Your task to perform on an android device: turn off translation in the chrome app Image 0: 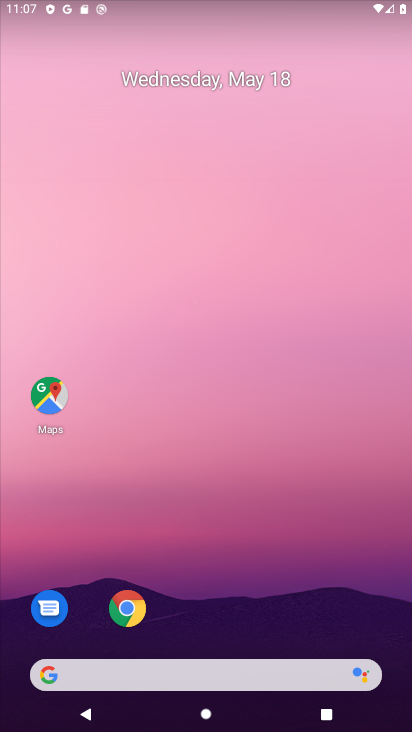
Step 0: click (113, 608)
Your task to perform on an android device: turn off translation in the chrome app Image 1: 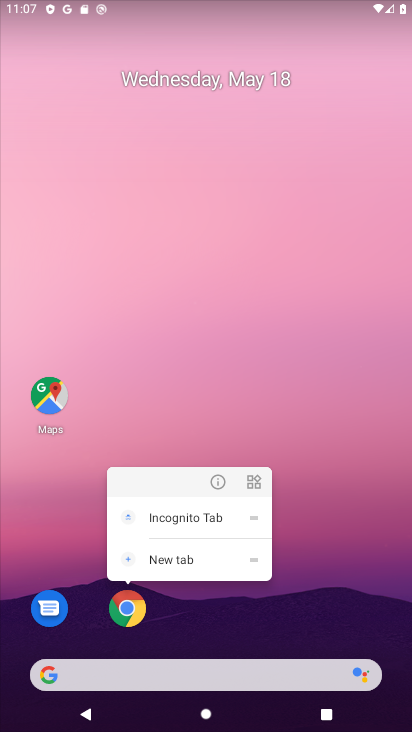
Step 1: click (127, 612)
Your task to perform on an android device: turn off translation in the chrome app Image 2: 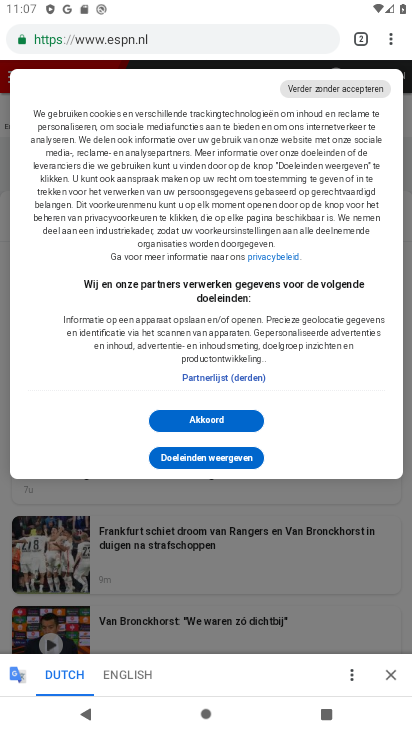
Step 2: click (390, 36)
Your task to perform on an android device: turn off translation in the chrome app Image 3: 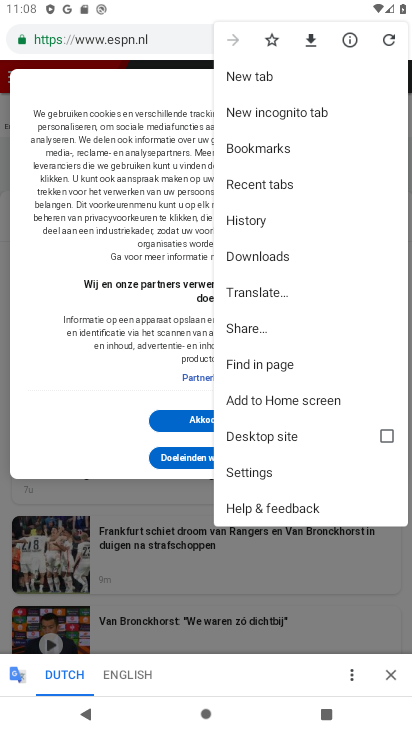
Step 3: click (253, 472)
Your task to perform on an android device: turn off translation in the chrome app Image 4: 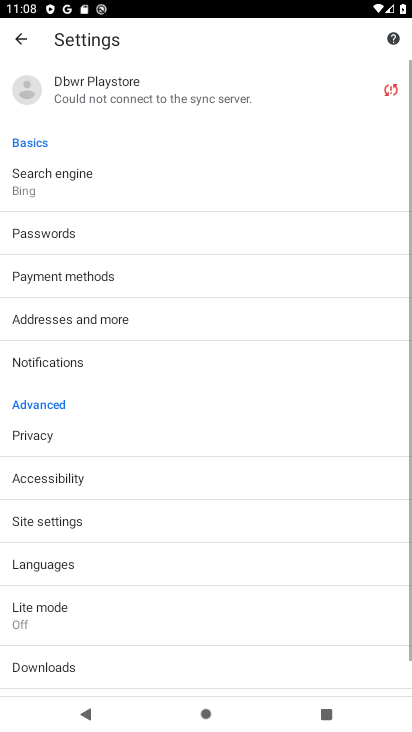
Step 4: drag from (159, 646) to (180, 304)
Your task to perform on an android device: turn off translation in the chrome app Image 5: 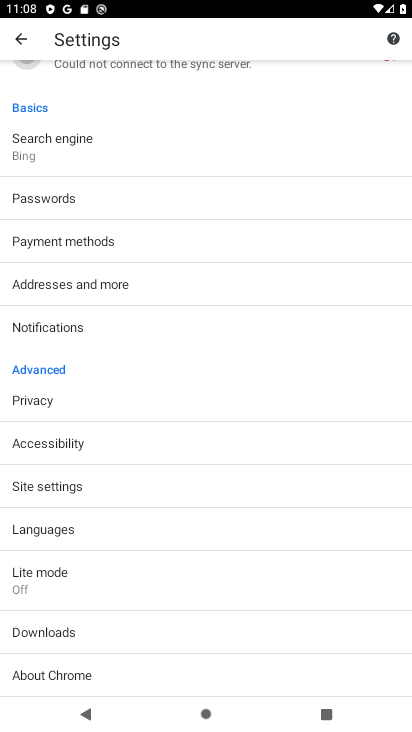
Step 5: drag from (80, 626) to (146, 372)
Your task to perform on an android device: turn off translation in the chrome app Image 6: 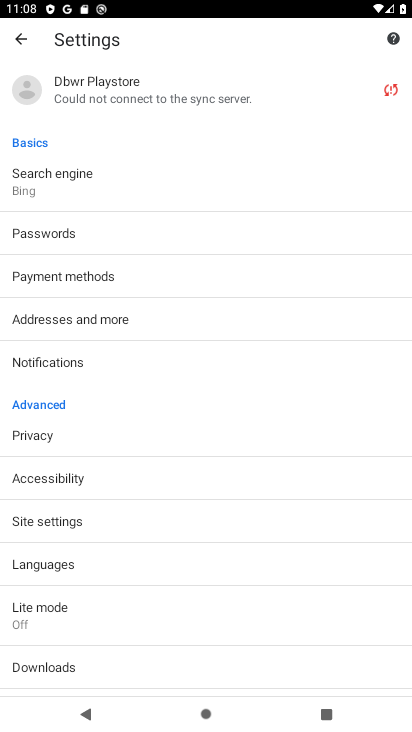
Step 6: click (47, 561)
Your task to perform on an android device: turn off translation in the chrome app Image 7: 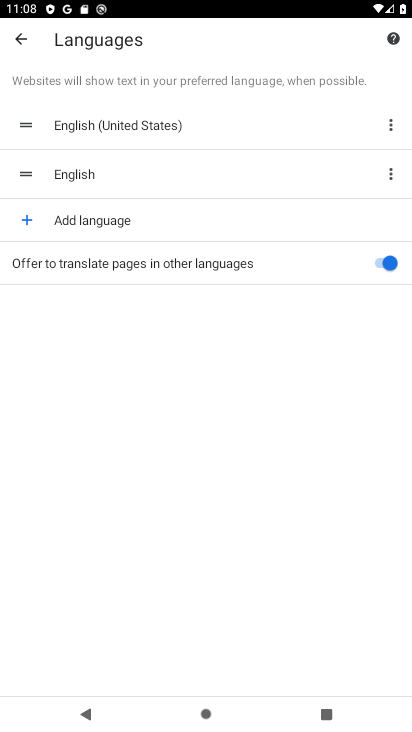
Step 7: click (379, 258)
Your task to perform on an android device: turn off translation in the chrome app Image 8: 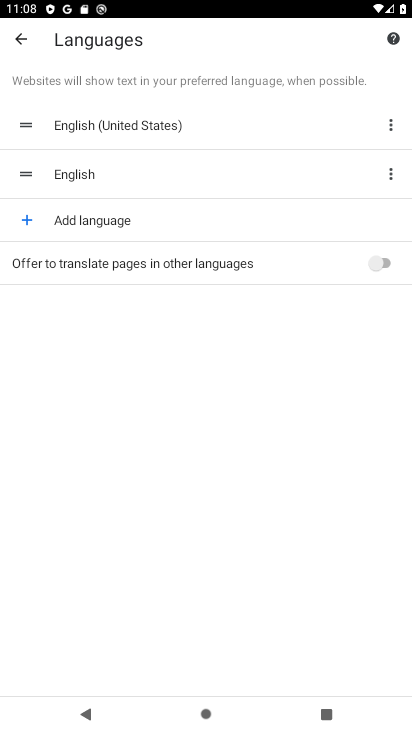
Step 8: task complete